Your task to perform on an android device: turn pop-ups off in chrome Image 0: 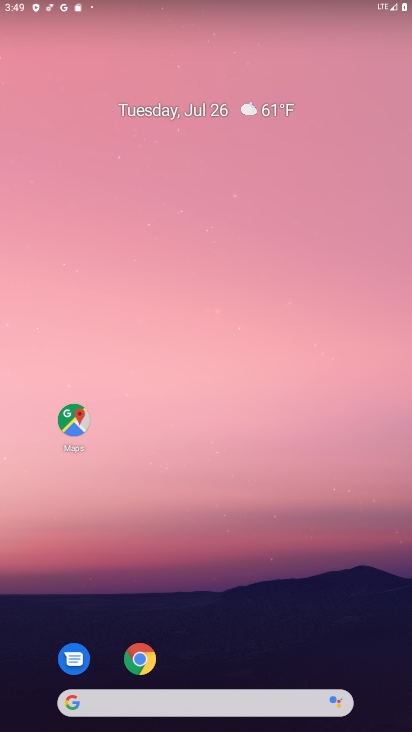
Step 0: drag from (302, 605) to (269, 36)
Your task to perform on an android device: turn pop-ups off in chrome Image 1: 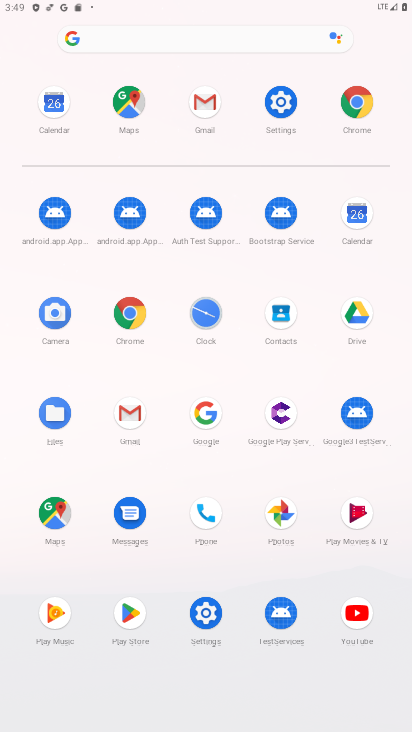
Step 1: click (362, 100)
Your task to perform on an android device: turn pop-ups off in chrome Image 2: 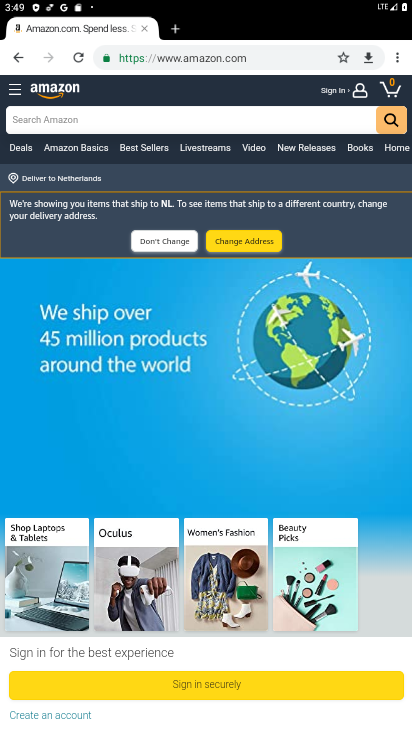
Step 2: drag from (400, 54) to (301, 421)
Your task to perform on an android device: turn pop-ups off in chrome Image 3: 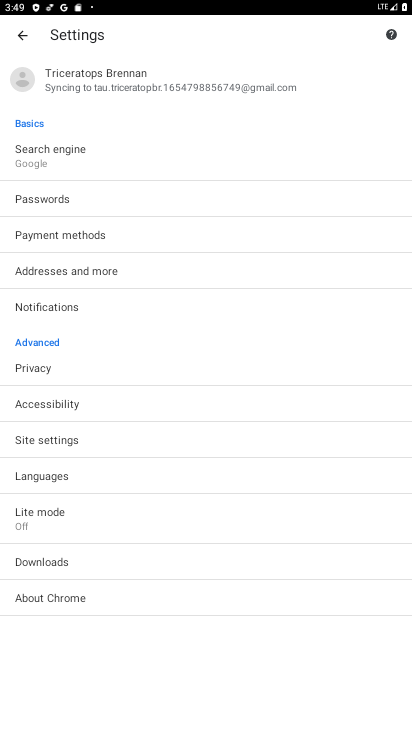
Step 3: click (63, 440)
Your task to perform on an android device: turn pop-ups off in chrome Image 4: 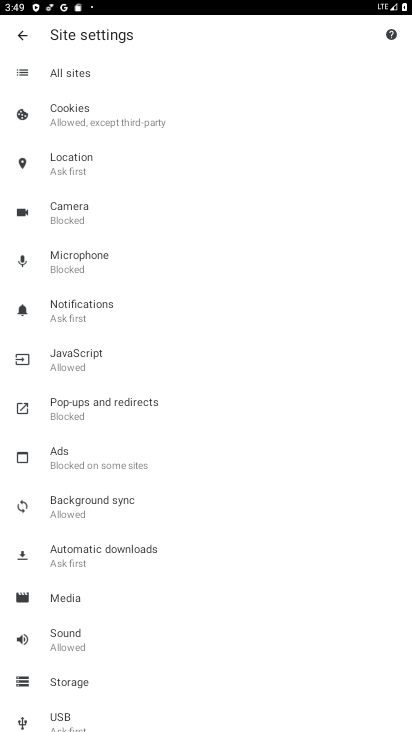
Step 4: click (120, 416)
Your task to perform on an android device: turn pop-ups off in chrome Image 5: 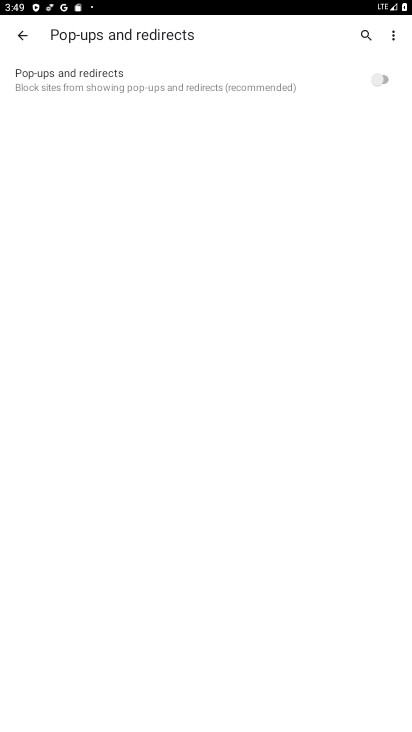
Step 5: task complete